Your task to perform on an android device: Open Reddit.com Image 0: 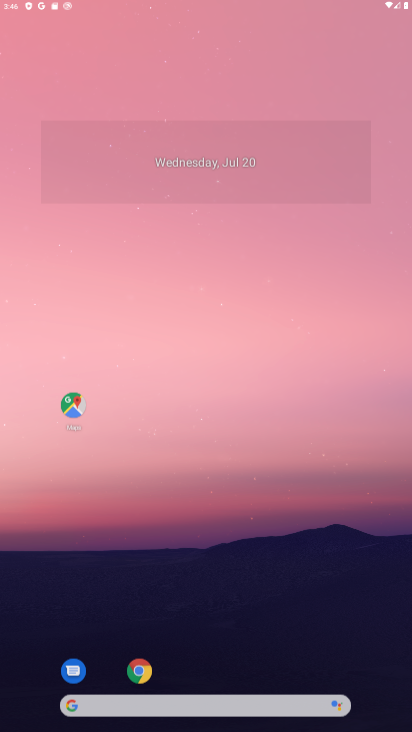
Step 0: press home button
Your task to perform on an android device: Open Reddit.com Image 1: 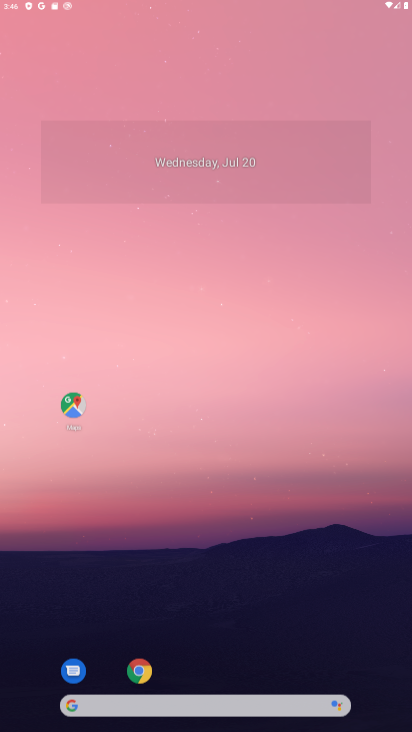
Step 1: click (74, 410)
Your task to perform on an android device: Open Reddit.com Image 2: 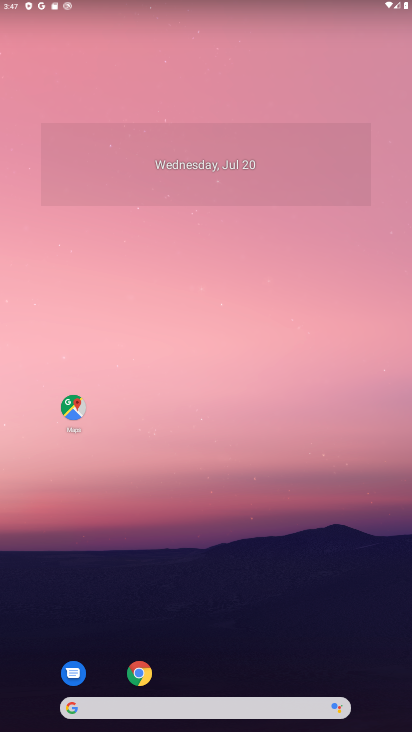
Step 2: click (129, 704)
Your task to perform on an android device: Open Reddit.com Image 3: 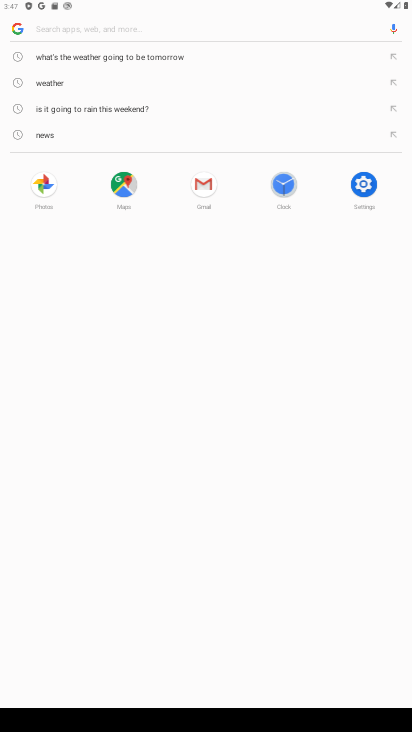
Step 3: type "Reddit.com"
Your task to perform on an android device: Open Reddit.com Image 4: 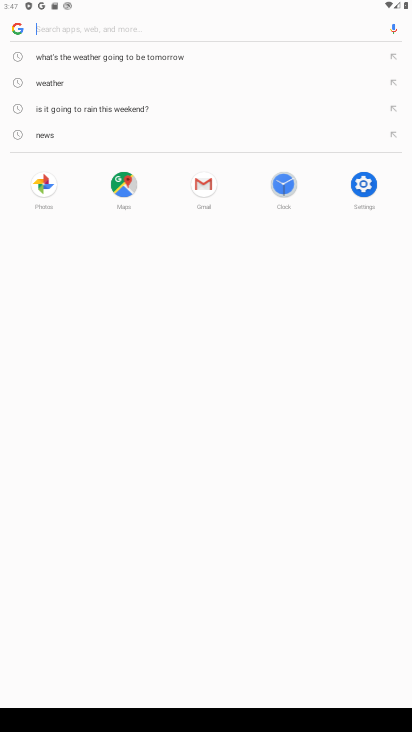
Step 4: click (80, 29)
Your task to perform on an android device: Open Reddit.com Image 5: 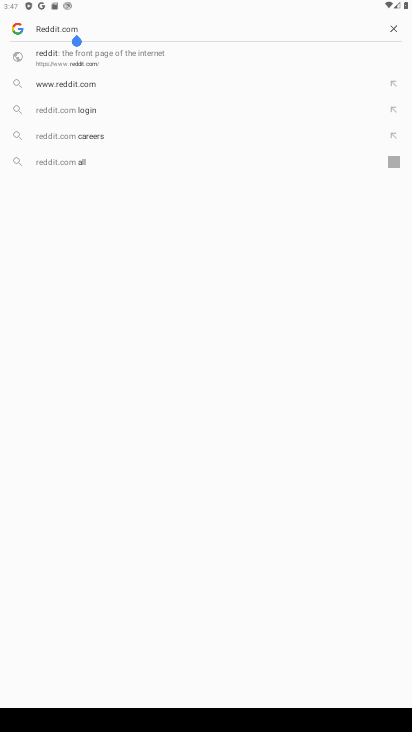
Step 5: press enter
Your task to perform on an android device: Open Reddit.com Image 6: 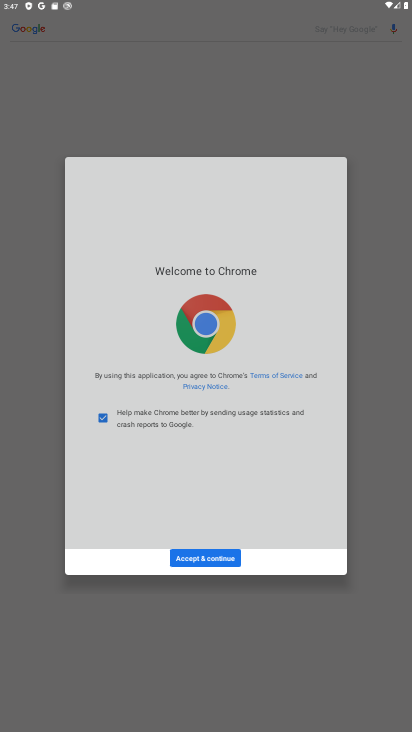
Step 6: click (227, 550)
Your task to perform on an android device: Open Reddit.com Image 7: 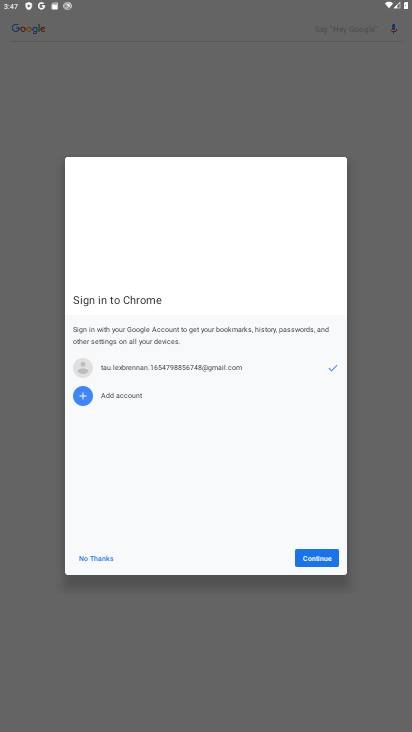
Step 7: click (311, 550)
Your task to perform on an android device: Open Reddit.com Image 8: 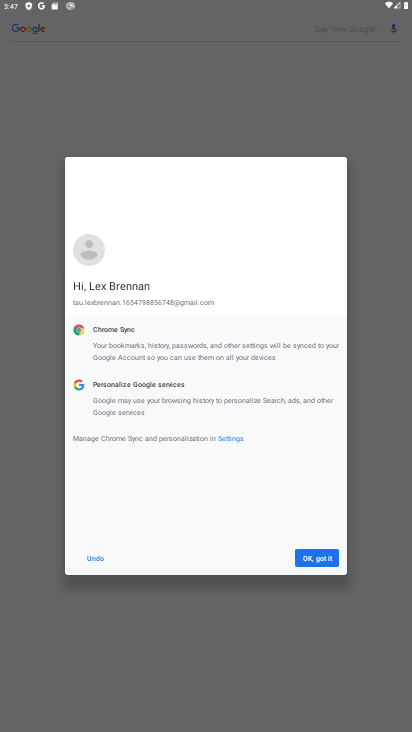
Step 8: click (309, 559)
Your task to perform on an android device: Open Reddit.com Image 9: 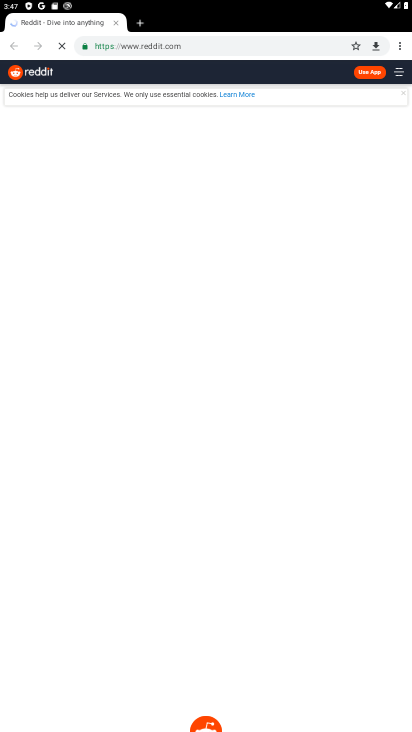
Step 9: task complete